Your task to perform on an android device: Check the weather Image 0: 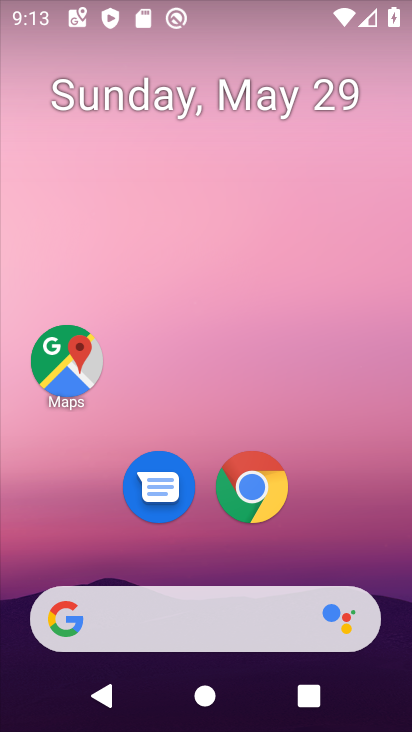
Step 0: click (161, 626)
Your task to perform on an android device: Check the weather Image 1: 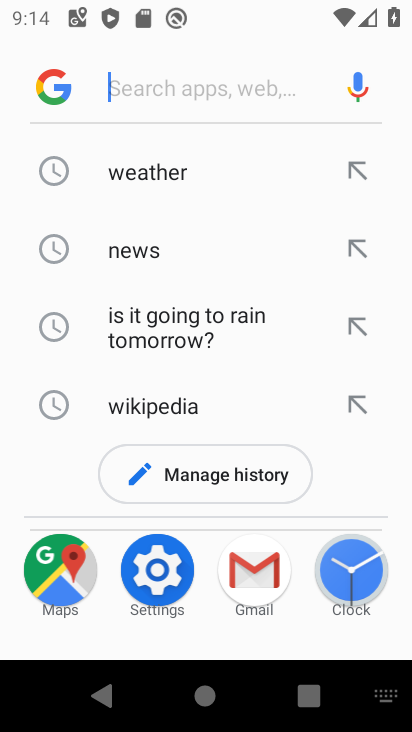
Step 1: click (141, 185)
Your task to perform on an android device: Check the weather Image 2: 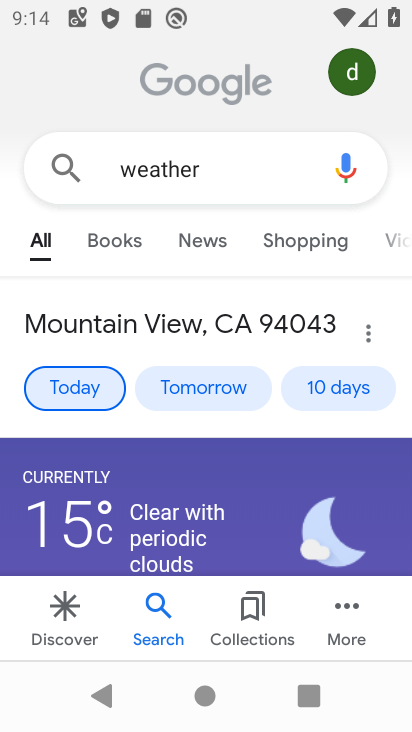
Step 2: task complete